Your task to perform on an android device: turn on improve location accuracy Image 0: 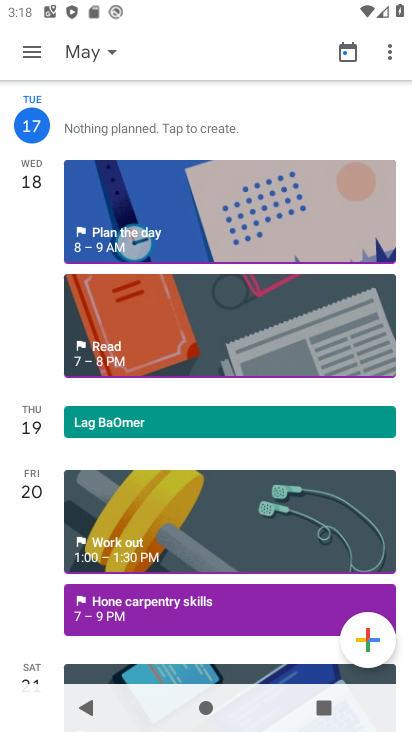
Step 0: press home button
Your task to perform on an android device: turn on improve location accuracy Image 1: 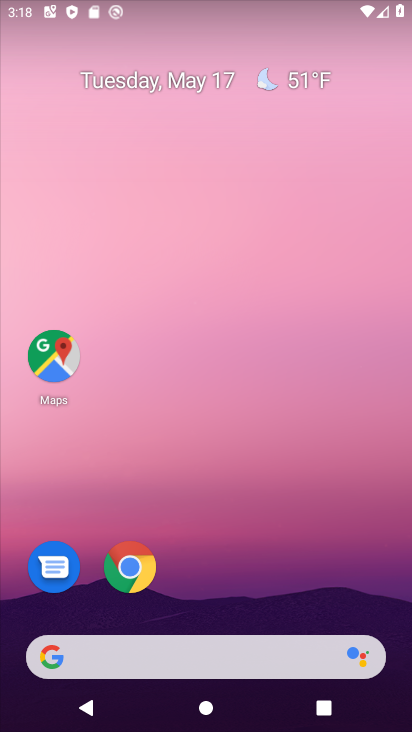
Step 1: drag from (208, 649) to (219, 217)
Your task to perform on an android device: turn on improve location accuracy Image 2: 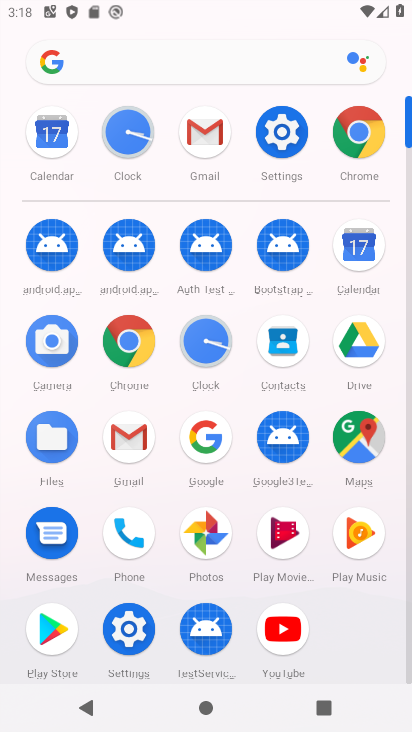
Step 2: click (131, 636)
Your task to perform on an android device: turn on improve location accuracy Image 3: 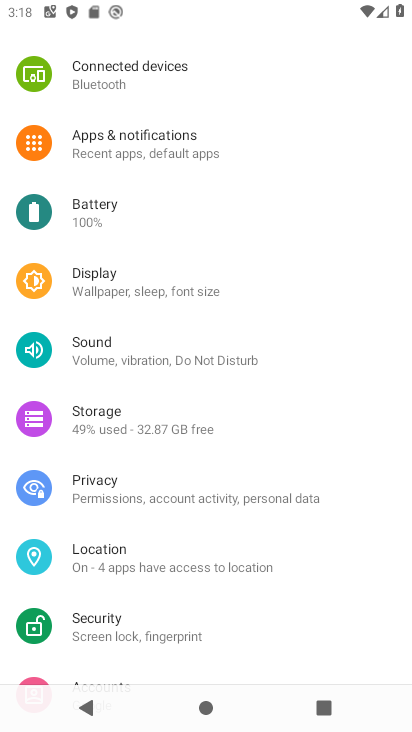
Step 3: click (118, 565)
Your task to perform on an android device: turn on improve location accuracy Image 4: 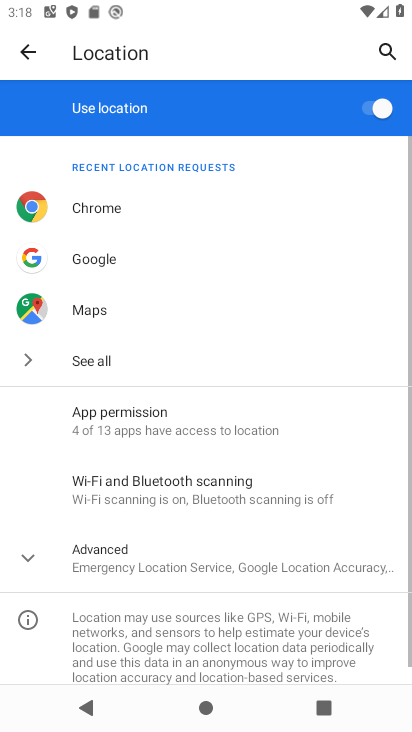
Step 4: click (213, 570)
Your task to perform on an android device: turn on improve location accuracy Image 5: 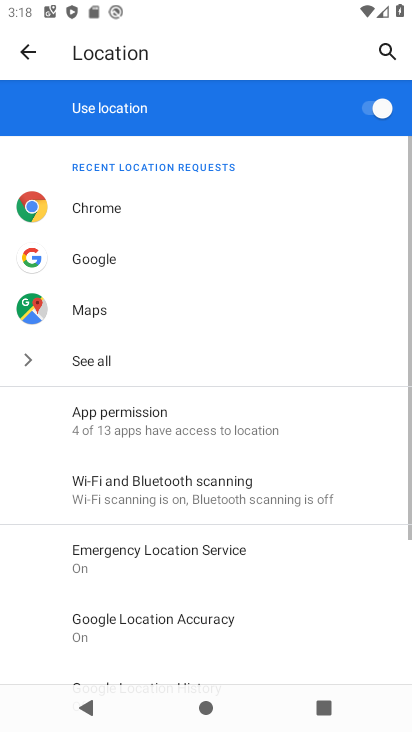
Step 5: click (240, 626)
Your task to perform on an android device: turn on improve location accuracy Image 6: 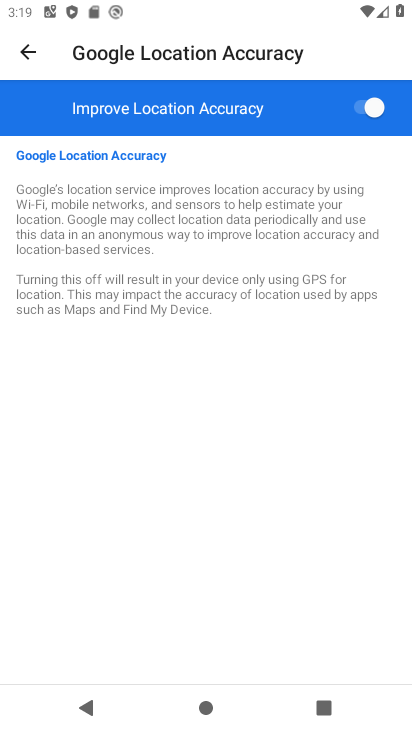
Step 6: task complete